Your task to perform on an android device: see sites visited before in the chrome app Image 0: 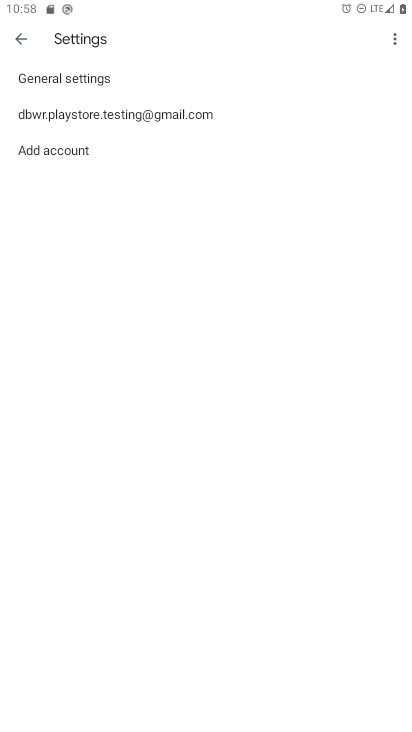
Step 0: press home button
Your task to perform on an android device: see sites visited before in the chrome app Image 1: 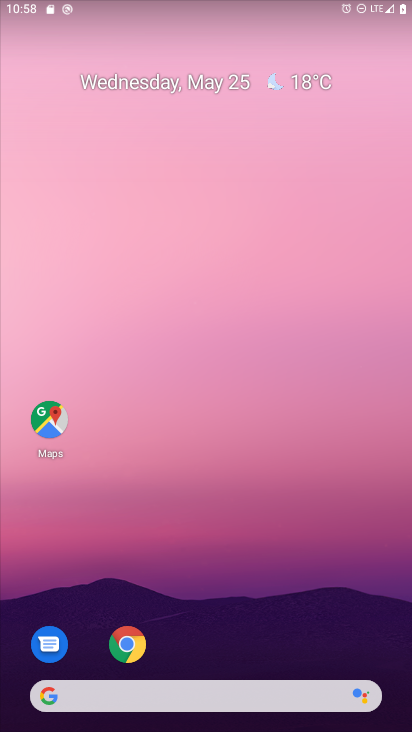
Step 1: click (127, 637)
Your task to perform on an android device: see sites visited before in the chrome app Image 2: 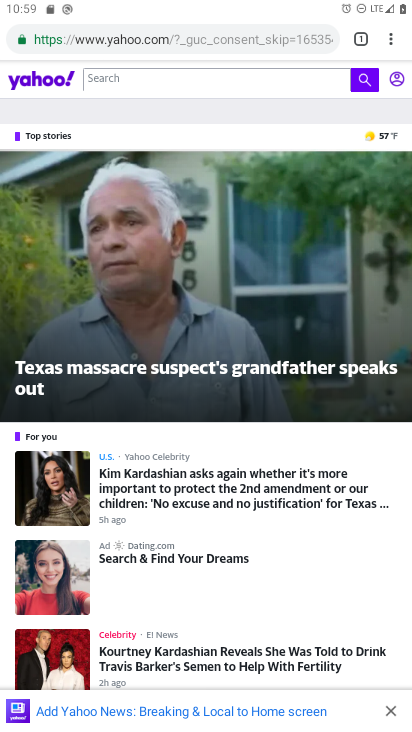
Step 2: click (389, 36)
Your task to perform on an android device: see sites visited before in the chrome app Image 3: 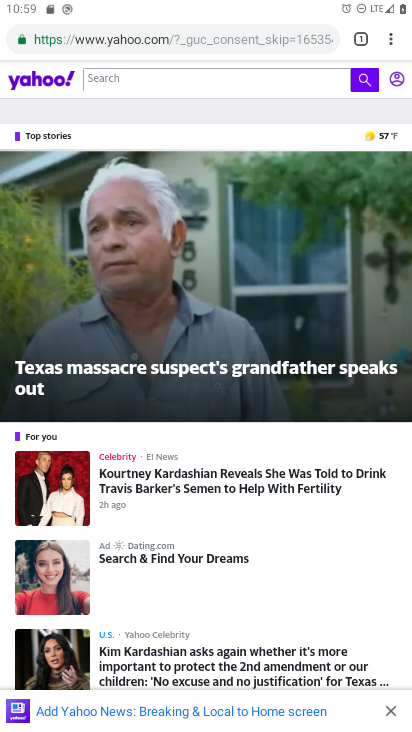
Step 3: click (390, 35)
Your task to perform on an android device: see sites visited before in the chrome app Image 4: 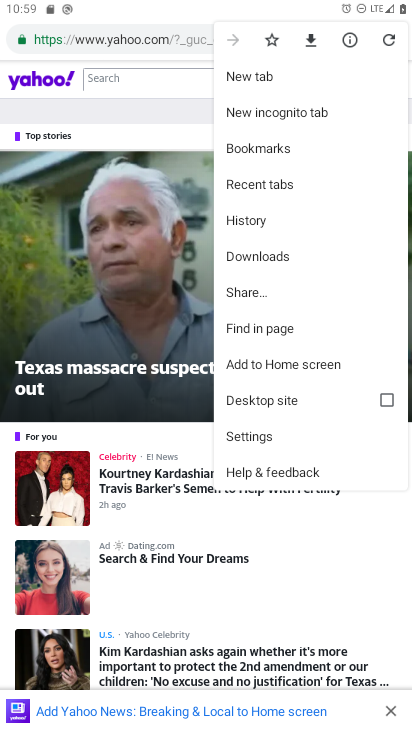
Step 4: click (274, 214)
Your task to perform on an android device: see sites visited before in the chrome app Image 5: 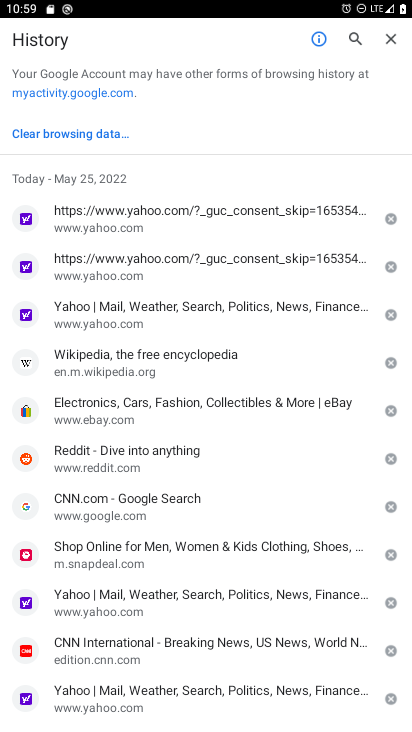
Step 5: task complete